Your task to perform on an android device: Search for seafood restaurants on Google Maps Image 0: 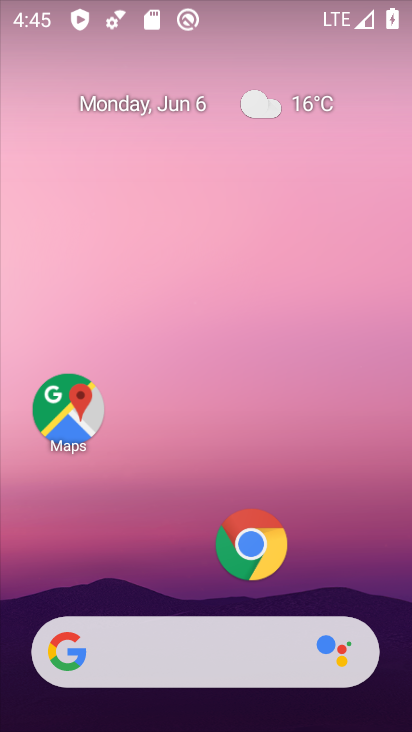
Step 0: click (64, 403)
Your task to perform on an android device: Search for seafood restaurants on Google Maps Image 1: 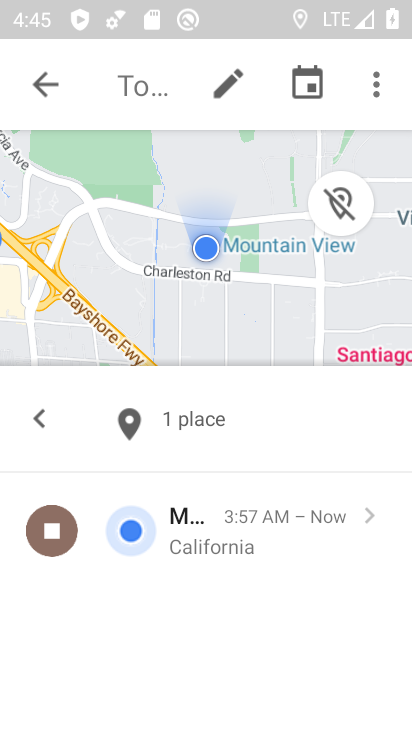
Step 1: click (54, 86)
Your task to perform on an android device: Search for seafood restaurants on Google Maps Image 2: 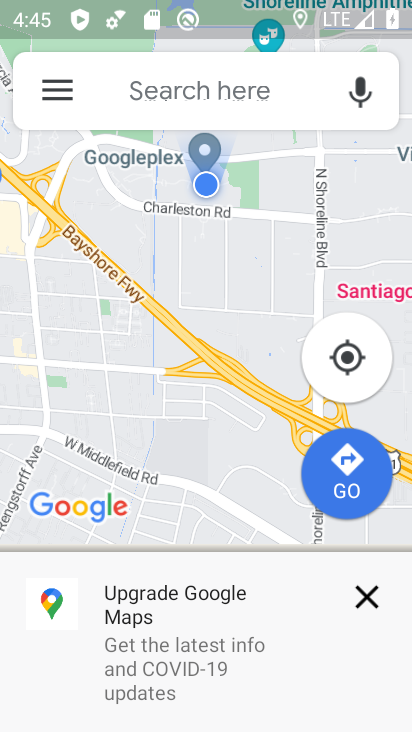
Step 2: click (153, 86)
Your task to perform on an android device: Search for seafood restaurants on Google Maps Image 3: 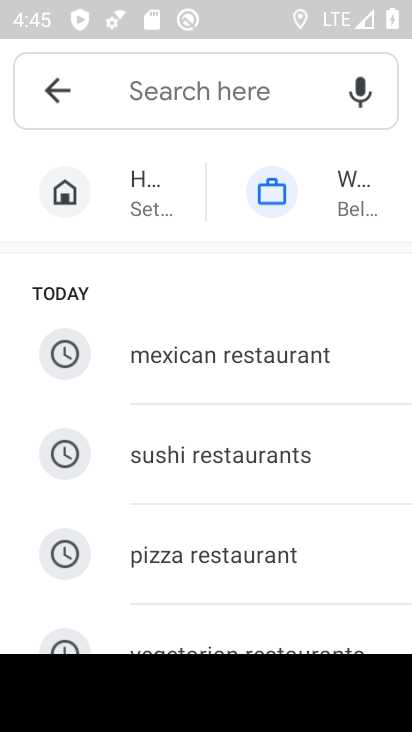
Step 3: type "seafood"
Your task to perform on an android device: Search for seafood restaurants on Google Maps Image 4: 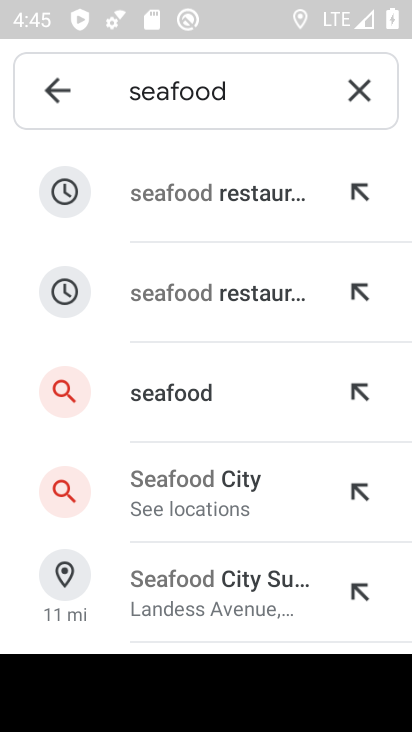
Step 4: click (223, 215)
Your task to perform on an android device: Search for seafood restaurants on Google Maps Image 5: 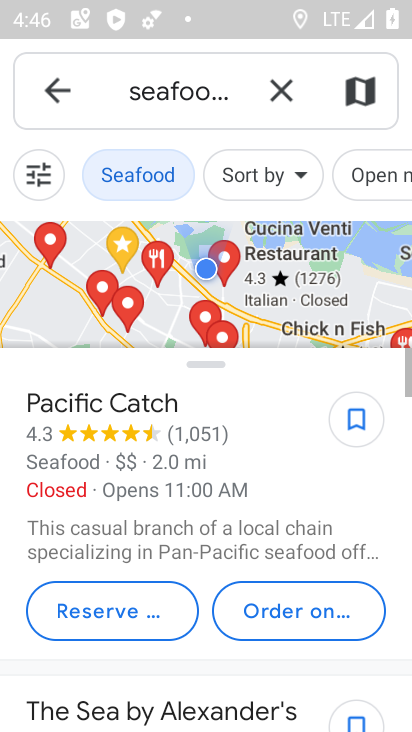
Step 5: task complete